Your task to perform on an android device: turn on notifications settings in the gmail app Image 0: 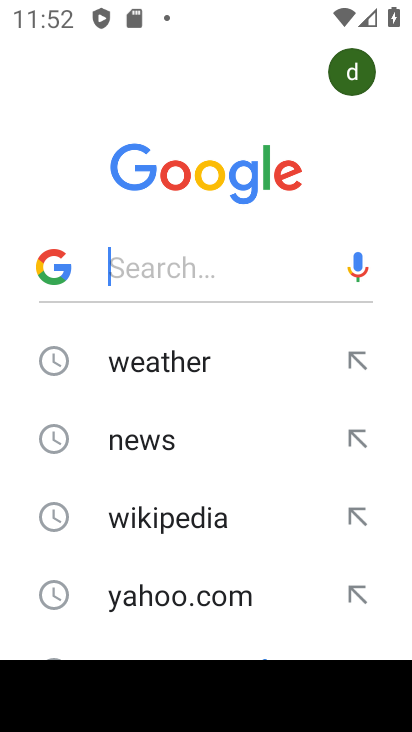
Step 0: press home button
Your task to perform on an android device: turn on notifications settings in the gmail app Image 1: 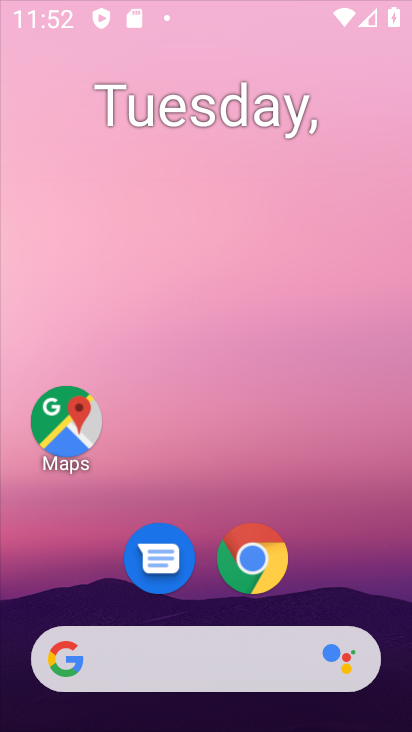
Step 1: drag from (243, 647) to (243, 136)
Your task to perform on an android device: turn on notifications settings in the gmail app Image 2: 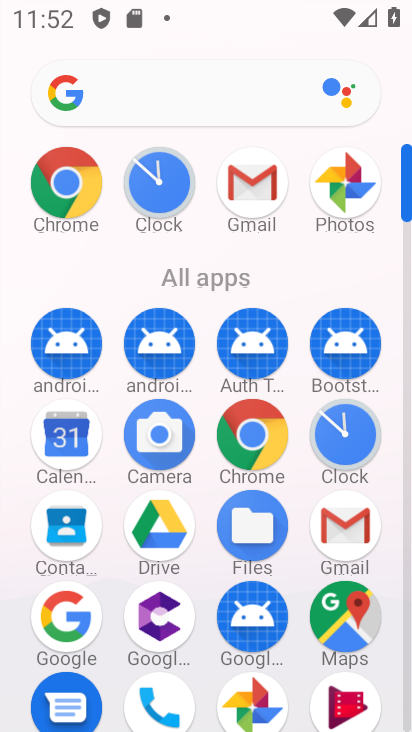
Step 2: click (358, 540)
Your task to perform on an android device: turn on notifications settings in the gmail app Image 3: 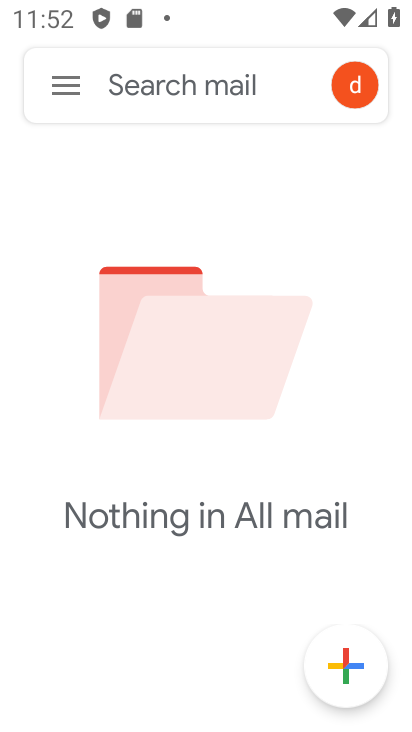
Step 3: click (70, 83)
Your task to perform on an android device: turn on notifications settings in the gmail app Image 4: 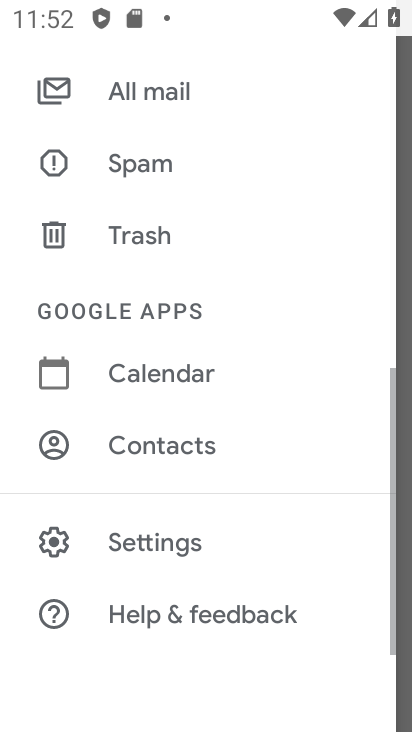
Step 4: click (167, 547)
Your task to perform on an android device: turn on notifications settings in the gmail app Image 5: 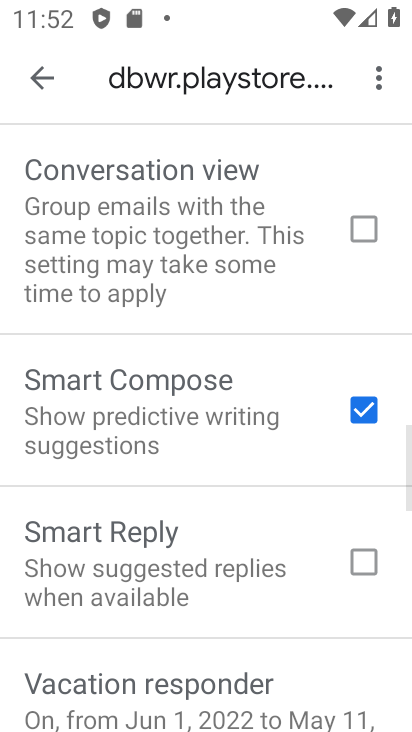
Step 5: drag from (167, 562) to (201, 267)
Your task to perform on an android device: turn on notifications settings in the gmail app Image 6: 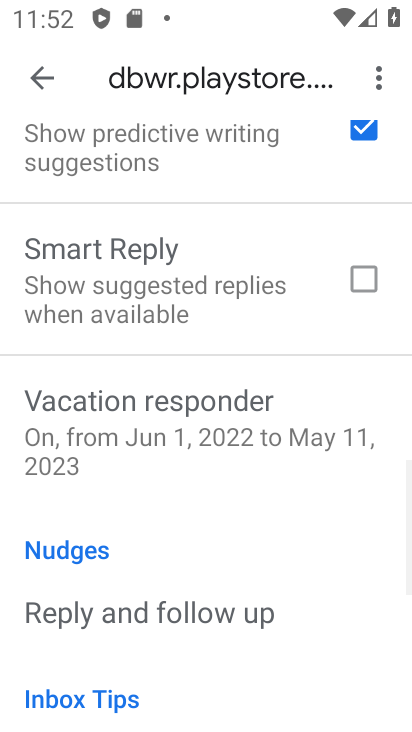
Step 6: drag from (204, 261) to (204, 678)
Your task to perform on an android device: turn on notifications settings in the gmail app Image 7: 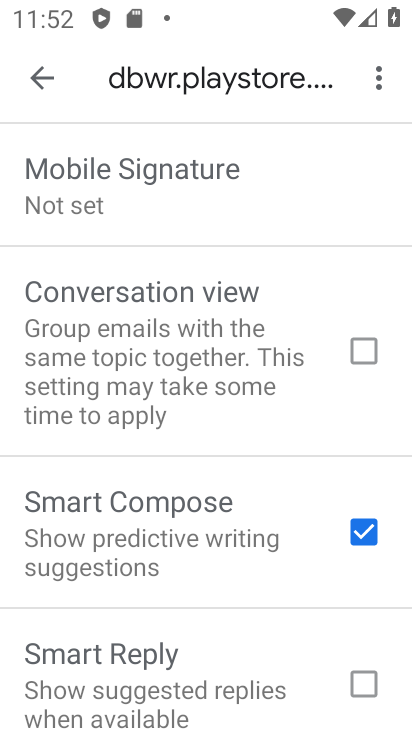
Step 7: click (40, 70)
Your task to perform on an android device: turn on notifications settings in the gmail app Image 8: 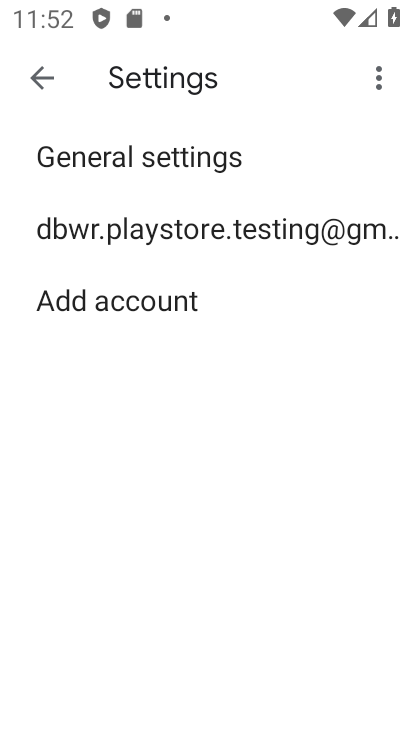
Step 8: click (226, 166)
Your task to perform on an android device: turn on notifications settings in the gmail app Image 9: 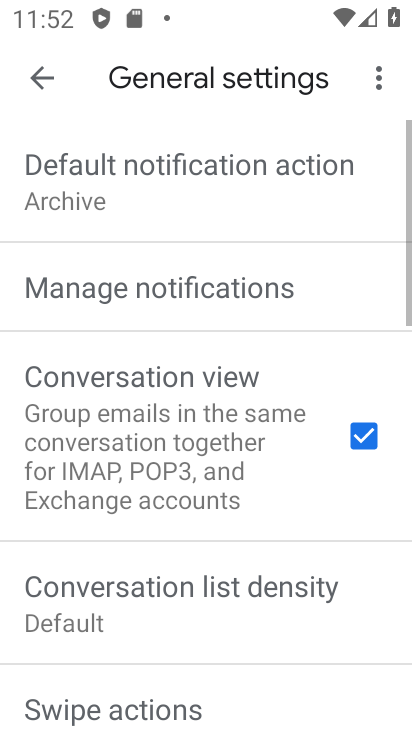
Step 9: click (204, 309)
Your task to perform on an android device: turn on notifications settings in the gmail app Image 10: 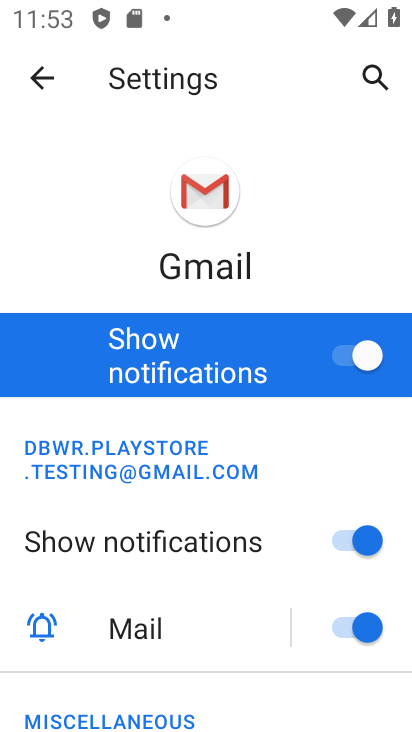
Step 10: task complete